Your task to perform on an android device: Go to network settings Image 0: 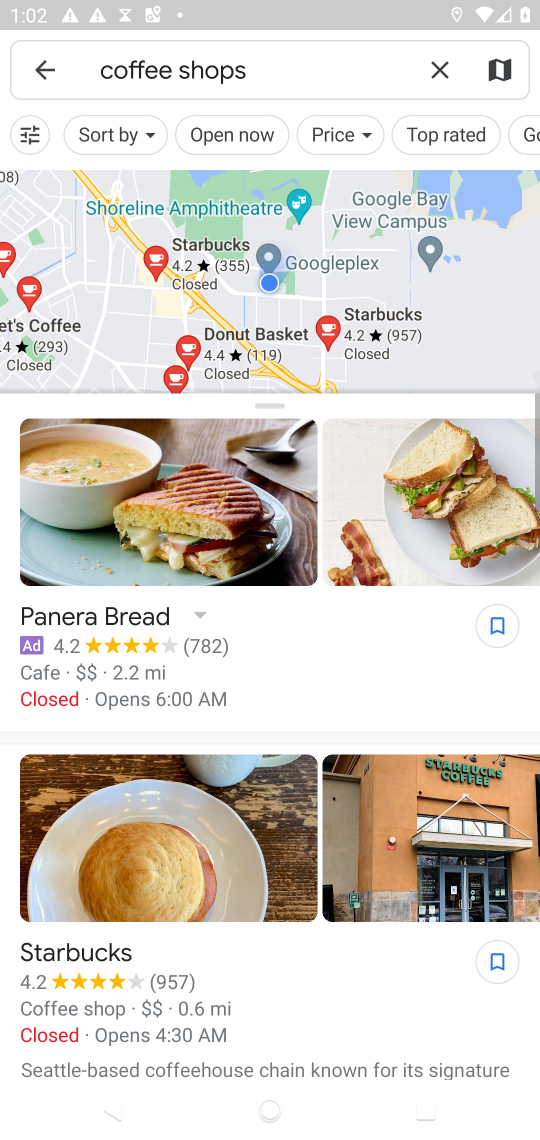
Step 0: press home button
Your task to perform on an android device: Go to network settings Image 1: 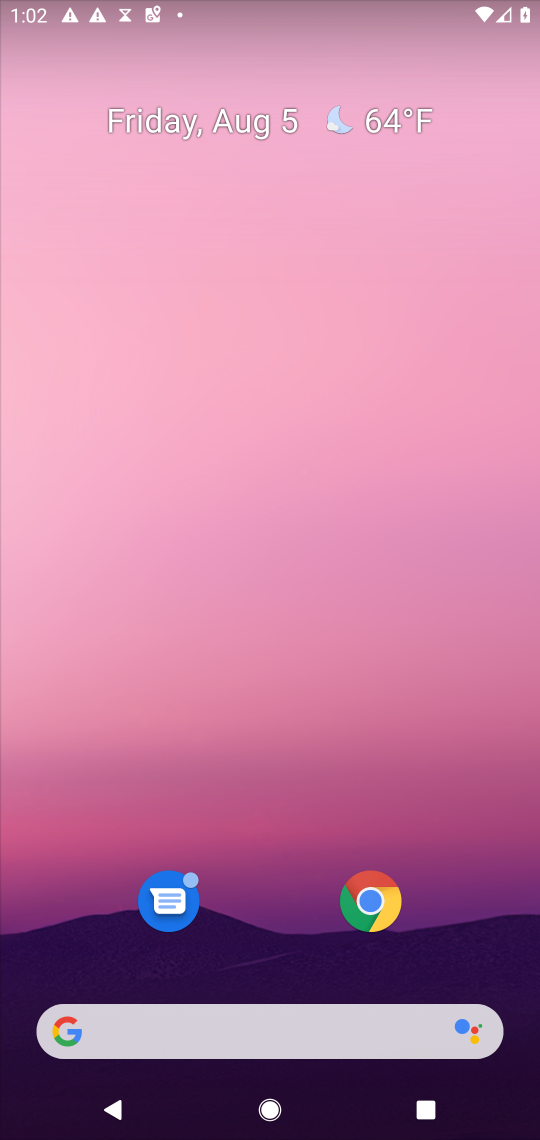
Step 1: drag from (259, 849) to (251, 40)
Your task to perform on an android device: Go to network settings Image 2: 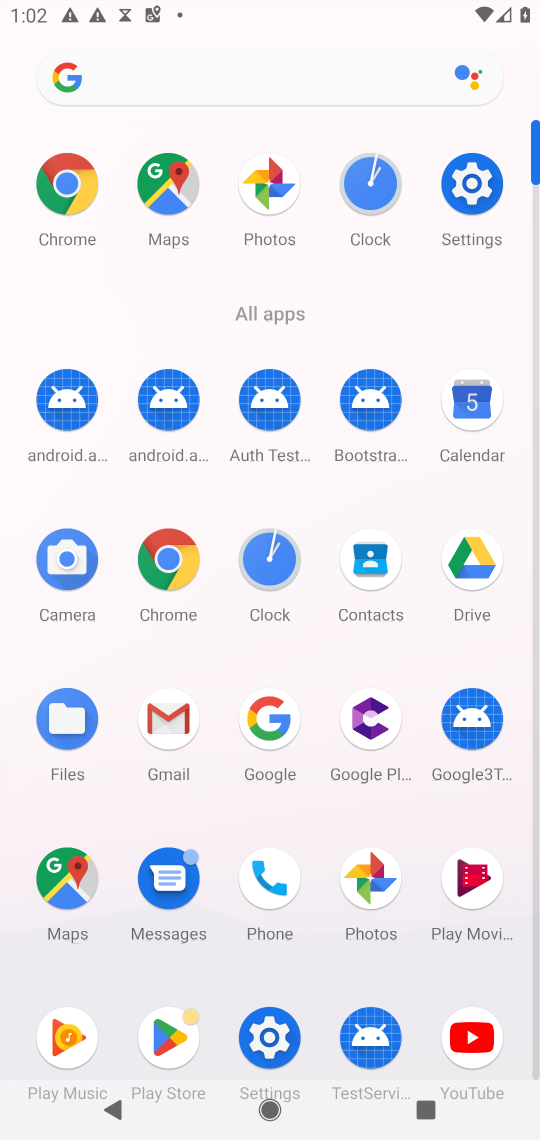
Step 2: click (467, 168)
Your task to perform on an android device: Go to network settings Image 3: 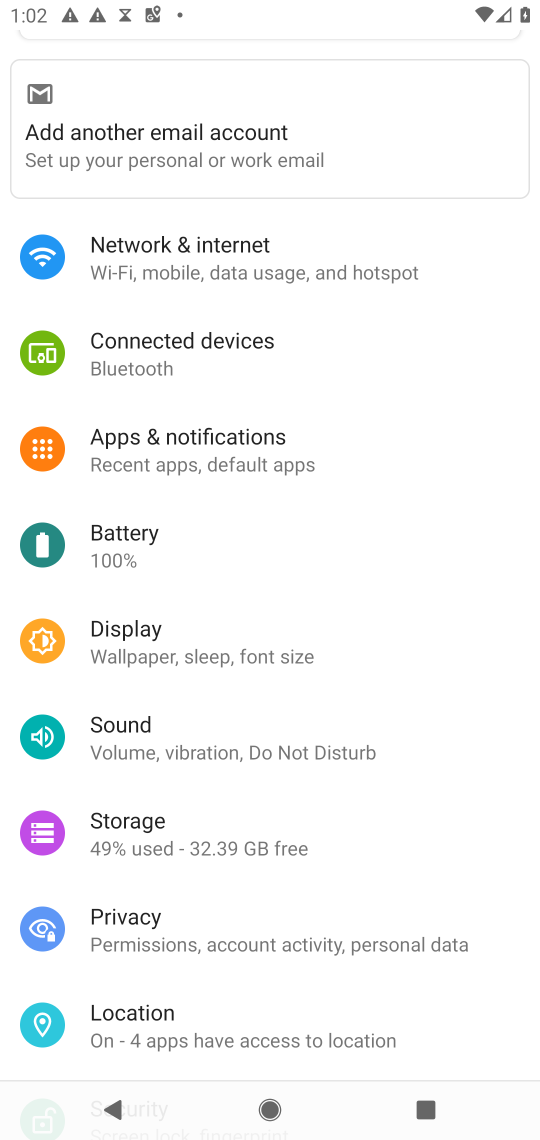
Step 3: click (260, 256)
Your task to perform on an android device: Go to network settings Image 4: 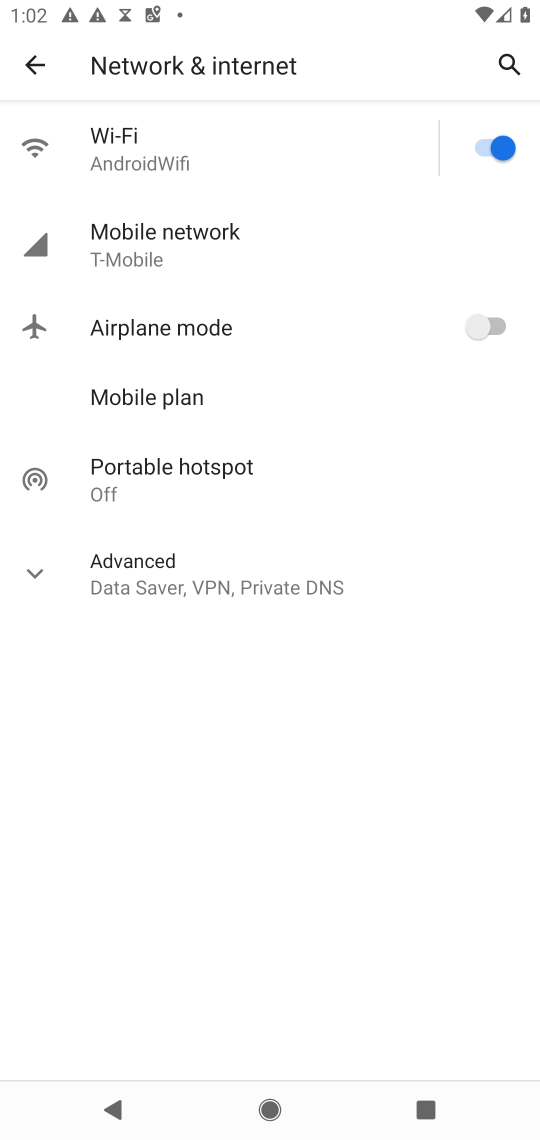
Step 4: task complete